Your task to perform on an android device: Open calendar and show me the third week of next month Image 0: 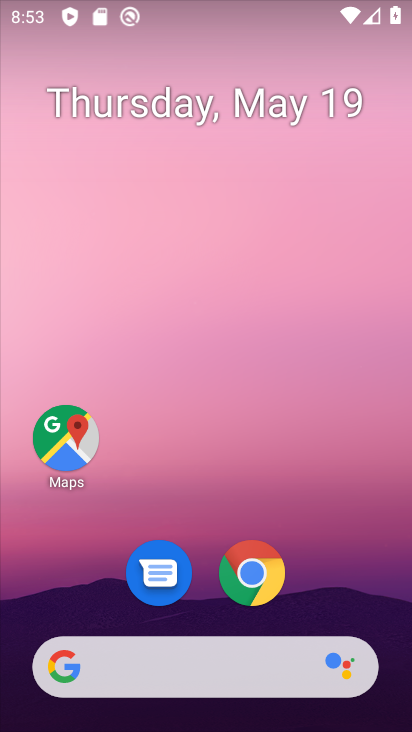
Step 0: drag from (200, 616) to (202, 225)
Your task to perform on an android device: Open calendar and show me the third week of next month Image 1: 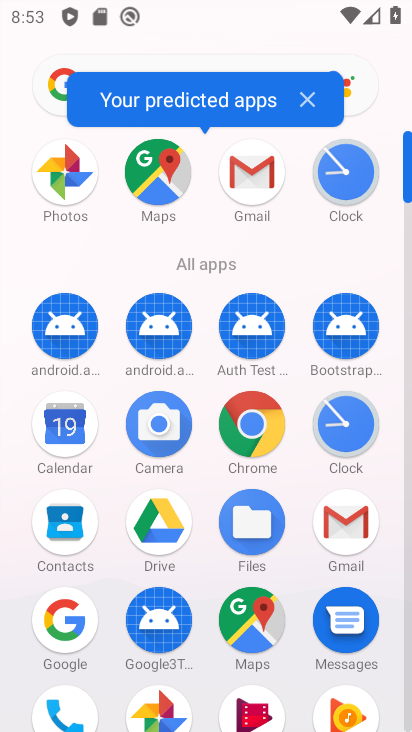
Step 1: click (70, 428)
Your task to perform on an android device: Open calendar and show me the third week of next month Image 2: 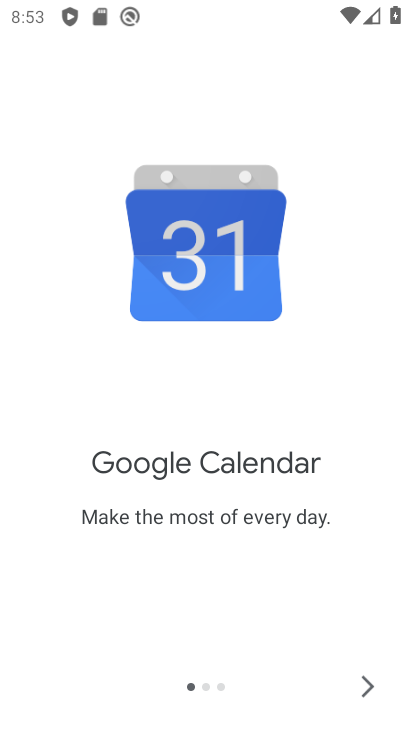
Step 2: click (360, 677)
Your task to perform on an android device: Open calendar and show me the third week of next month Image 3: 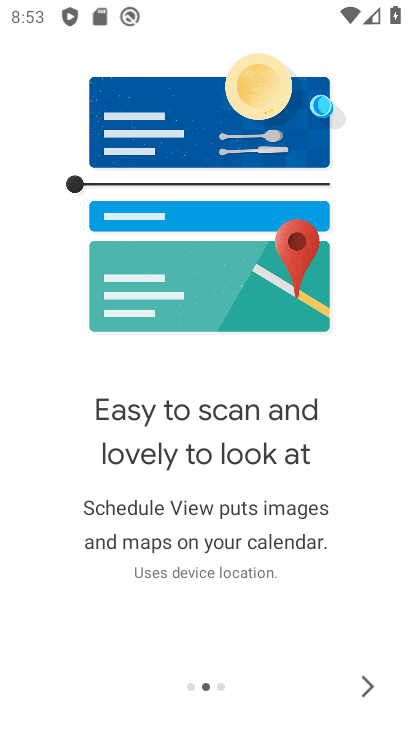
Step 3: click (358, 669)
Your task to perform on an android device: Open calendar and show me the third week of next month Image 4: 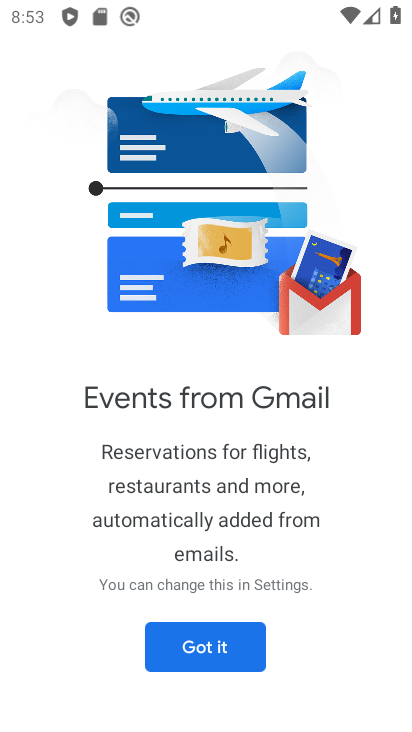
Step 4: click (194, 644)
Your task to perform on an android device: Open calendar and show me the third week of next month Image 5: 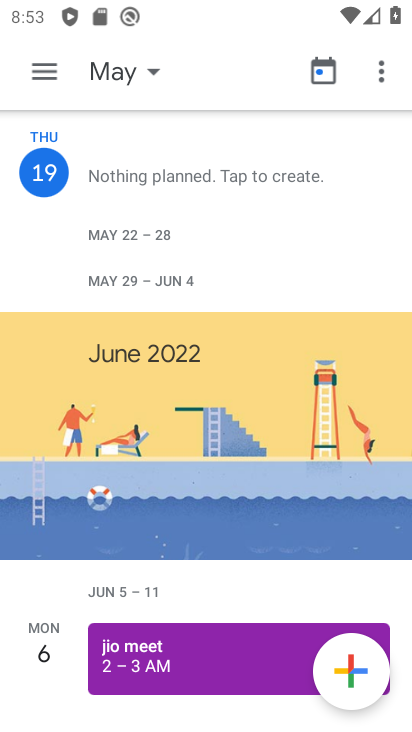
Step 5: click (141, 74)
Your task to perform on an android device: Open calendar and show me the third week of next month Image 6: 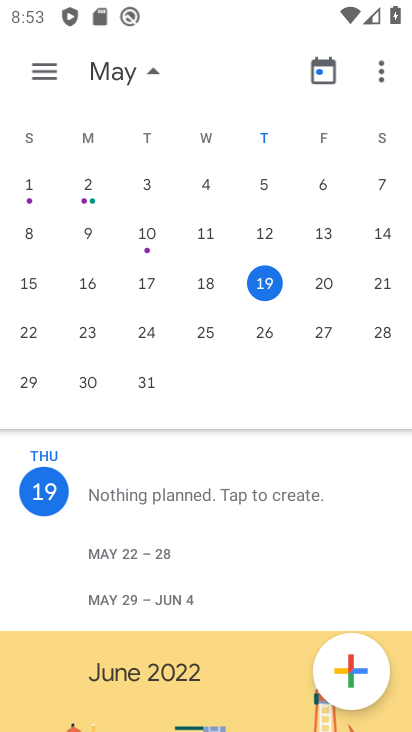
Step 6: drag from (342, 267) to (0, 199)
Your task to perform on an android device: Open calendar and show me the third week of next month Image 7: 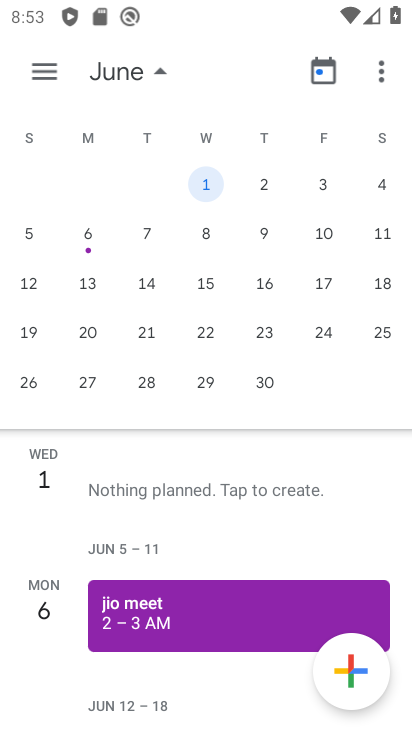
Step 7: click (36, 289)
Your task to perform on an android device: Open calendar and show me the third week of next month Image 8: 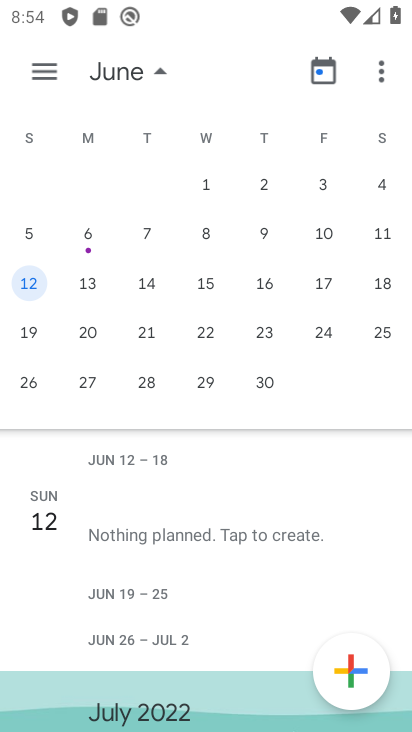
Step 8: task complete